Your task to perform on an android device: Check the weather Image 0: 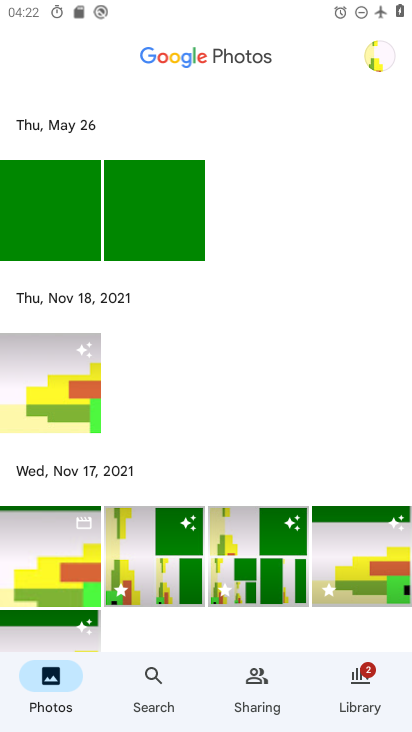
Step 0: press home button
Your task to perform on an android device: Check the weather Image 1: 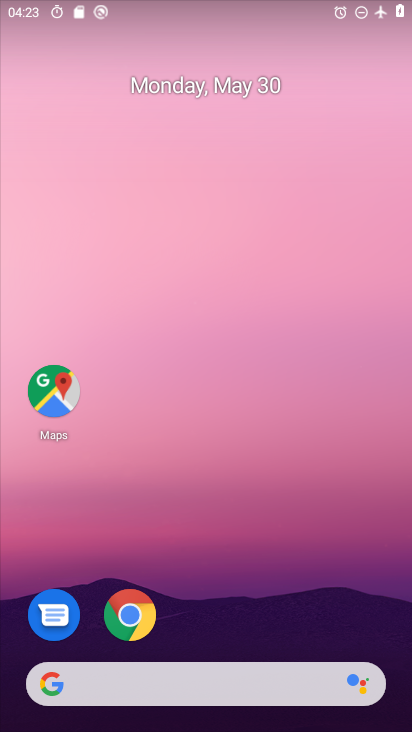
Step 1: drag from (232, 616) to (216, 176)
Your task to perform on an android device: Check the weather Image 2: 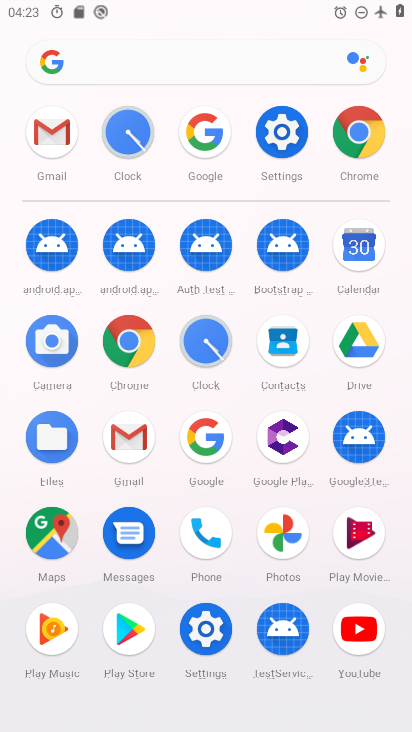
Step 2: click (199, 132)
Your task to perform on an android device: Check the weather Image 3: 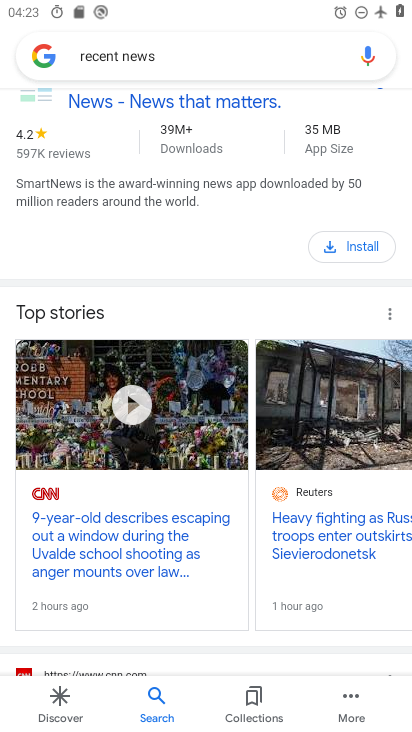
Step 3: click (205, 56)
Your task to perform on an android device: Check the weather Image 4: 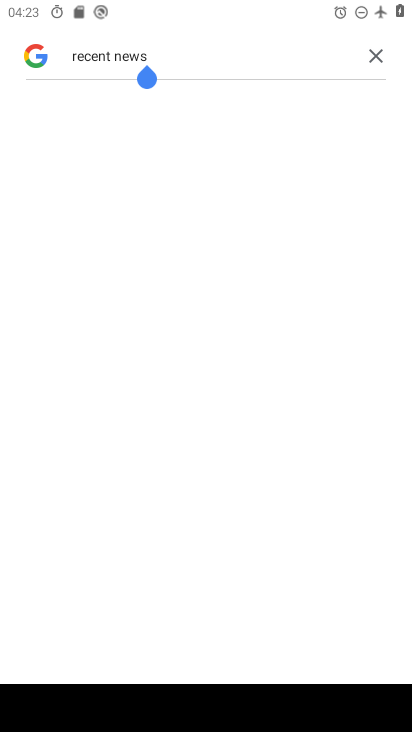
Step 4: click (371, 59)
Your task to perform on an android device: Check the weather Image 5: 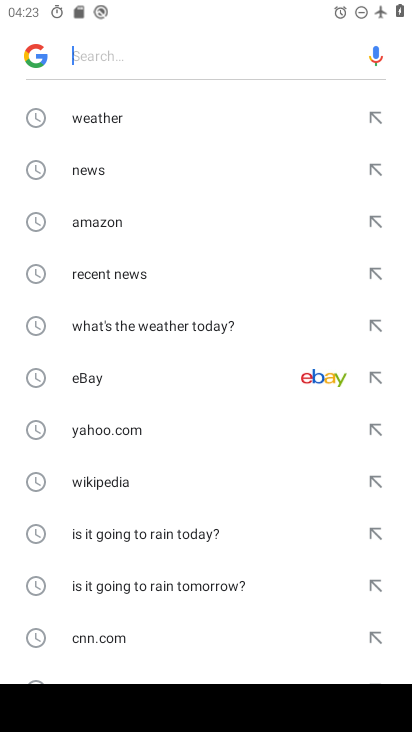
Step 5: click (111, 121)
Your task to perform on an android device: Check the weather Image 6: 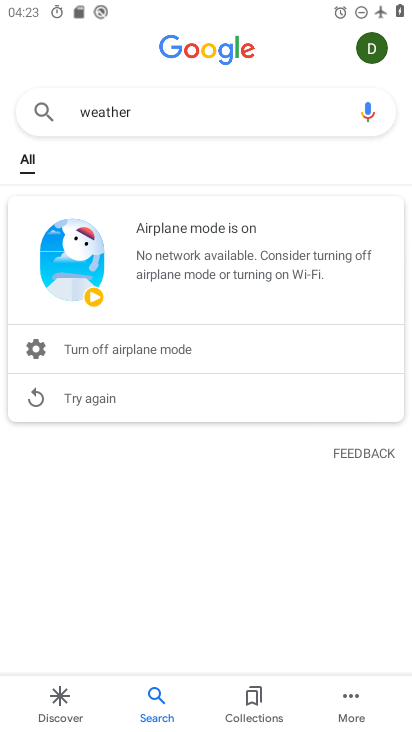
Step 6: task complete